Your task to perform on an android device: Open battery settings Image 0: 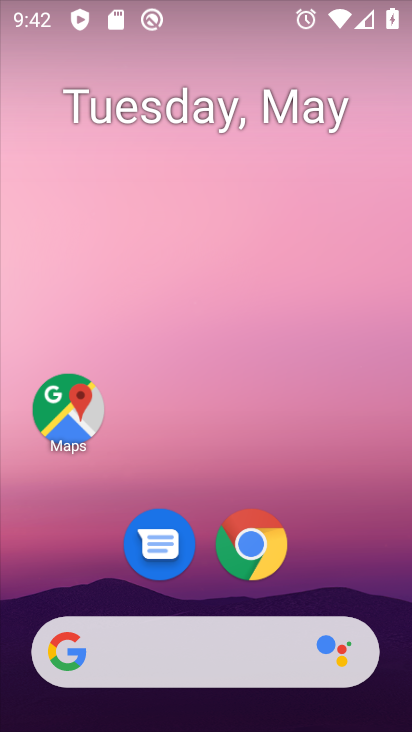
Step 0: drag from (361, 554) to (312, 212)
Your task to perform on an android device: Open battery settings Image 1: 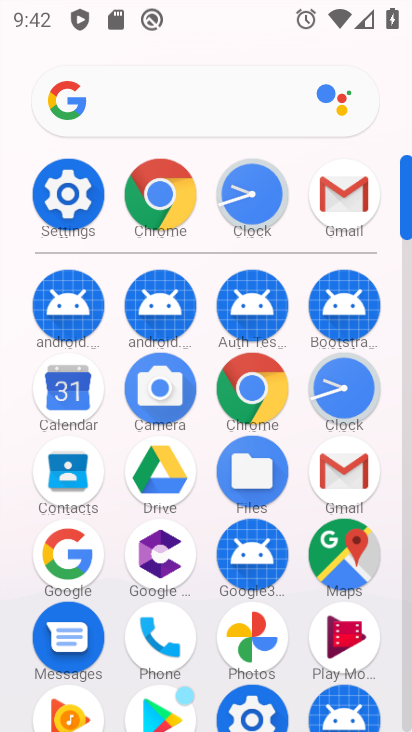
Step 1: click (59, 199)
Your task to perform on an android device: Open battery settings Image 2: 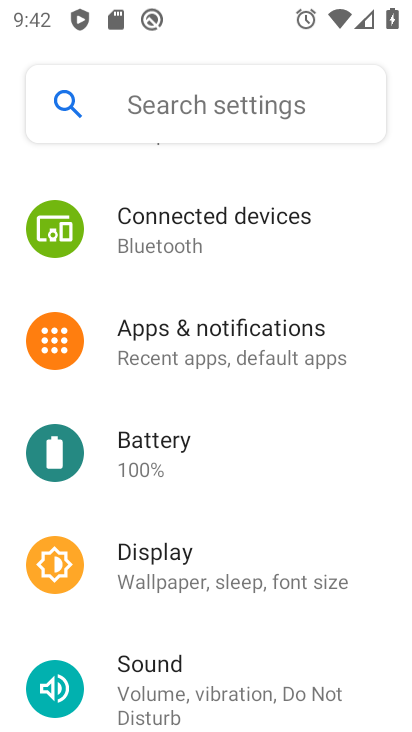
Step 2: click (224, 422)
Your task to perform on an android device: Open battery settings Image 3: 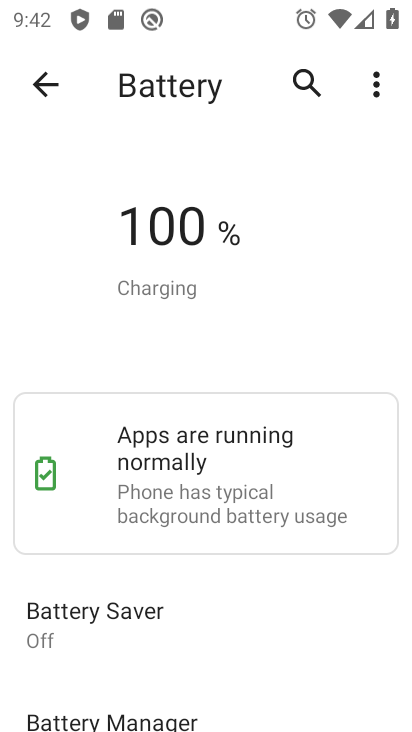
Step 3: task complete